Your task to perform on an android device: Go to calendar. Show me events next week Image 0: 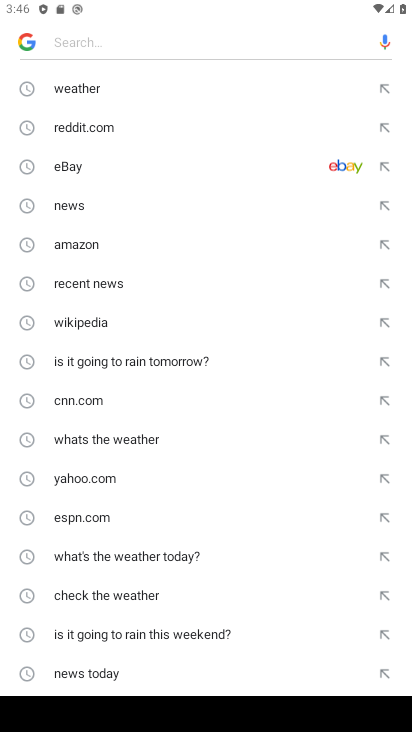
Step 0: press home button
Your task to perform on an android device: Go to calendar. Show me events next week Image 1: 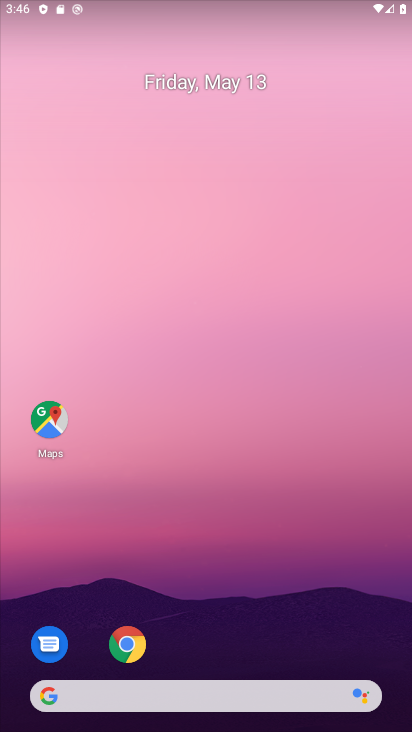
Step 1: drag from (239, 596) to (193, 37)
Your task to perform on an android device: Go to calendar. Show me events next week Image 2: 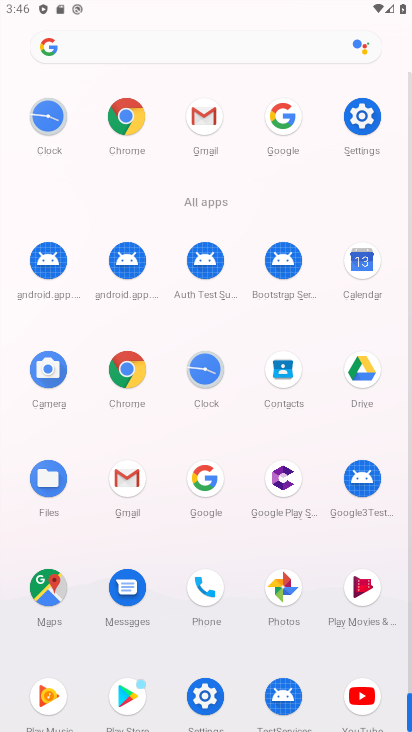
Step 2: click (356, 266)
Your task to perform on an android device: Go to calendar. Show me events next week Image 3: 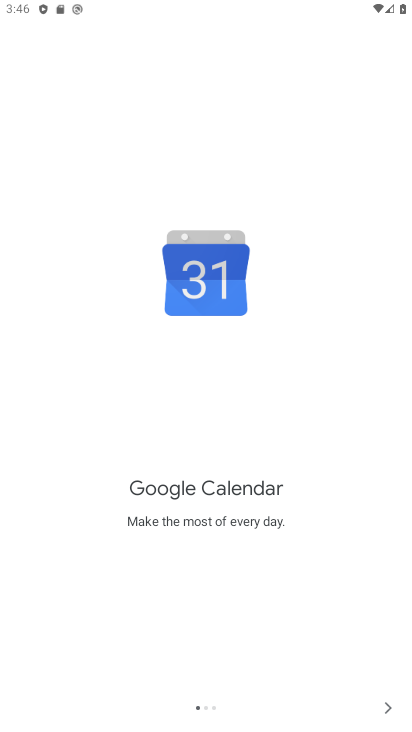
Step 3: click (387, 706)
Your task to perform on an android device: Go to calendar. Show me events next week Image 4: 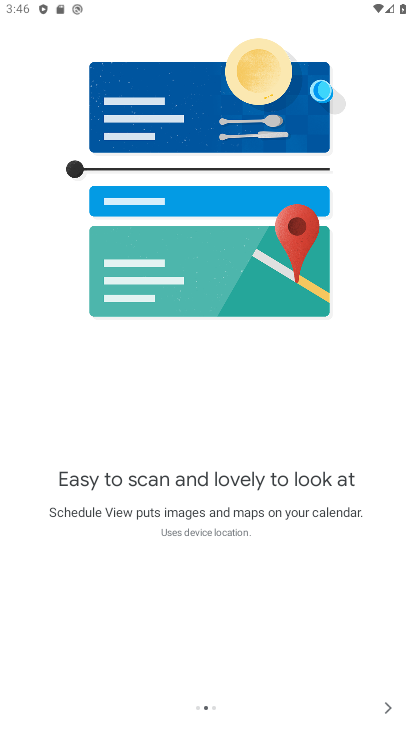
Step 4: click (387, 706)
Your task to perform on an android device: Go to calendar. Show me events next week Image 5: 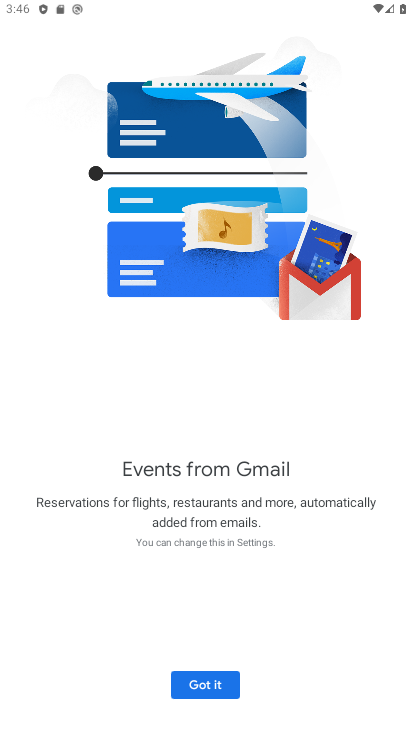
Step 5: click (208, 682)
Your task to perform on an android device: Go to calendar. Show me events next week Image 6: 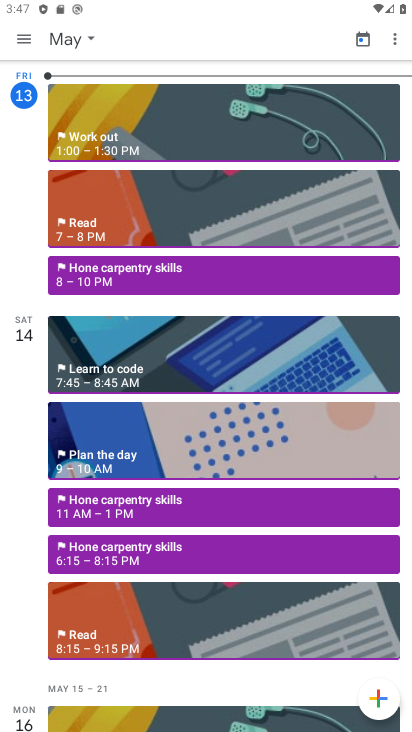
Step 6: click (29, 42)
Your task to perform on an android device: Go to calendar. Show me events next week Image 7: 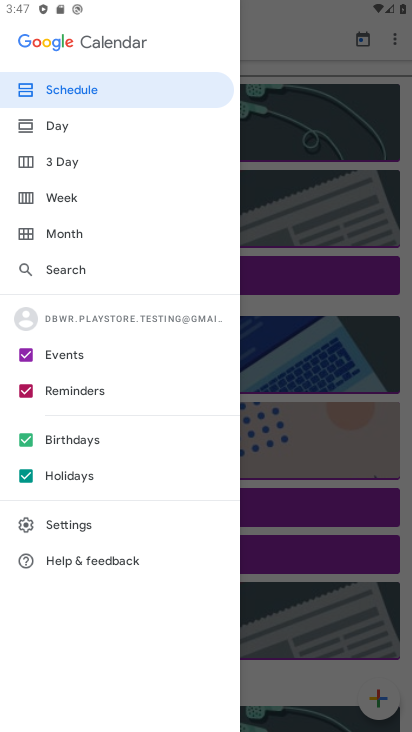
Step 7: click (88, 198)
Your task to perform on an android device: Go to calendar. Show me events next week Image 8: 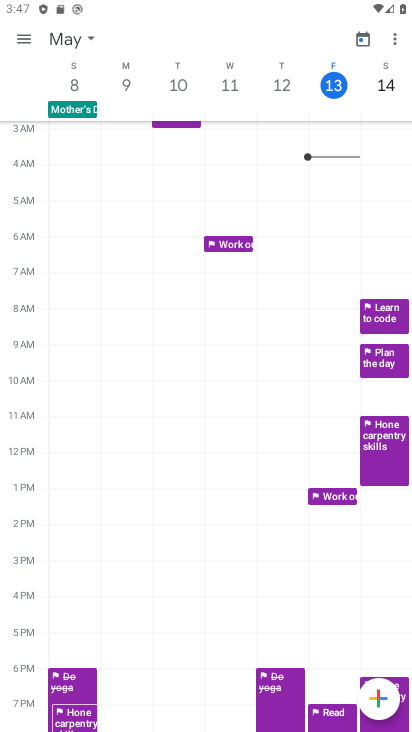
Step 8: click (71, 44)
Your task to perform on an android device: Go to calendar. Show me events next week Image 9: 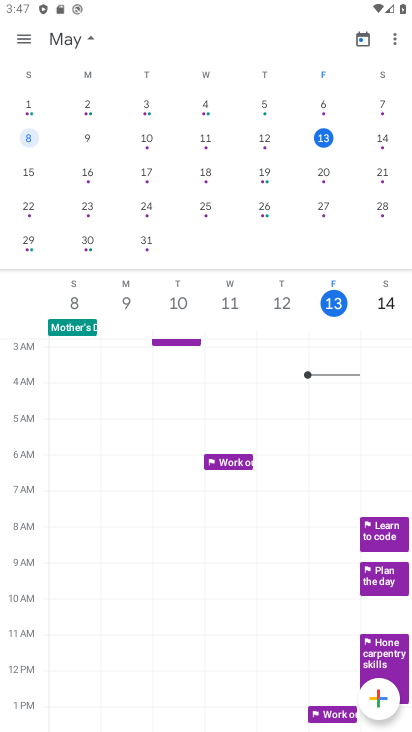
Step 9: click (85, 169)
Your task to perform on an android device: Go to calendar. Show me events next week Image 10: 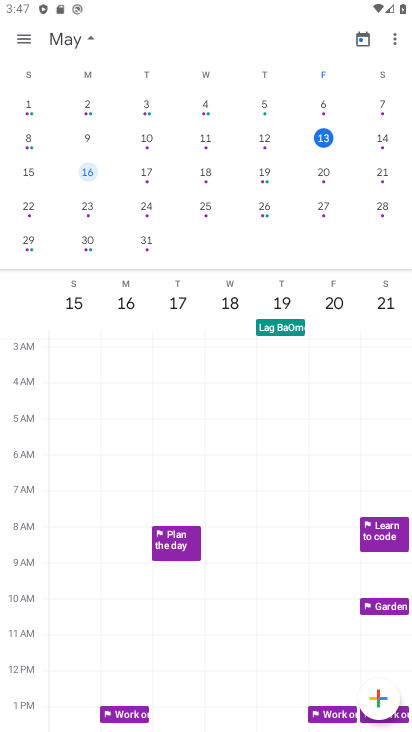
Step 10: task complete